Your task to perform on an android device: Go to accessibility settings Image 0: 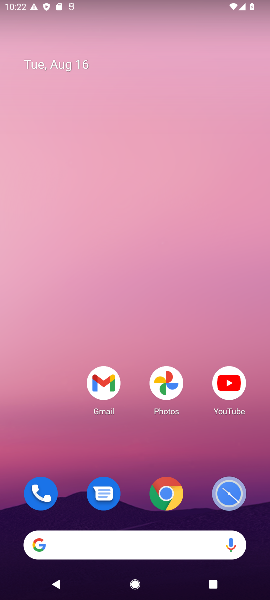
Step 0: drag from (205, 333) to (173, 9)
Your task to perform on an android device: Go to accessibility settings Image 1: 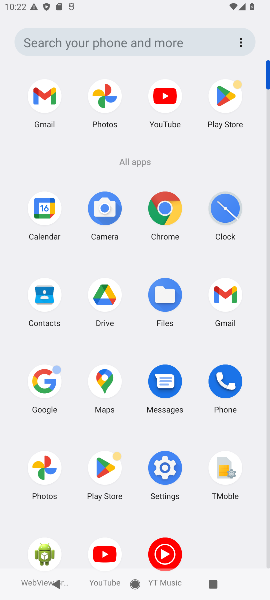
Step 1: click (156, 468)
Your task to perform on an android device: Go to accessibility settings Image 2: 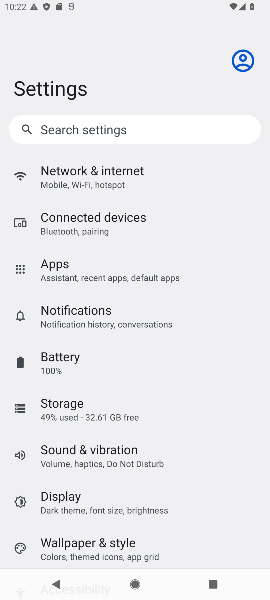
Step 2: drag from (152, 467) to (126, 255)
Your task to perform on an android device: Go to accessibility settings Image 3: 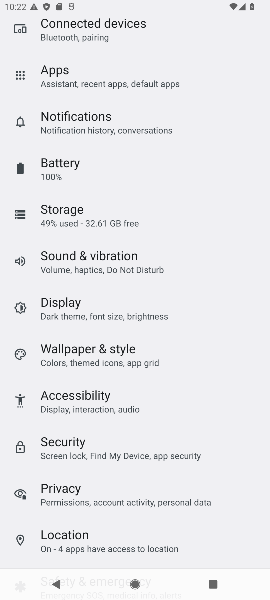
Step 3: click (114, 398)
Your task to perform on an android device: Go to accessibility settings Image 4: 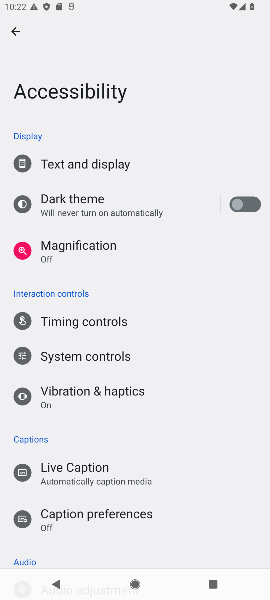
Step 4: task complete